Your task to perform on an android device: Open accessibility settings Image 0: 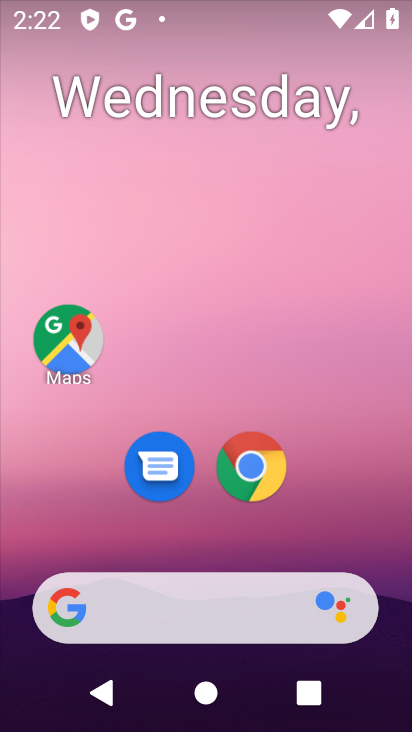
Step 0: drag from (322, 481) to (299, 26)
Your task to perform on an android device: Open accessibility settings Image 1: 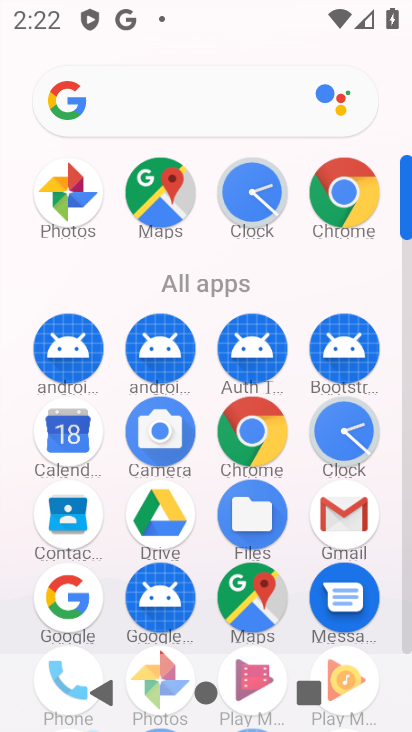
Step 1: click (406, 601)
Your task to perform on an android device: Open accessibility settings Image 2: 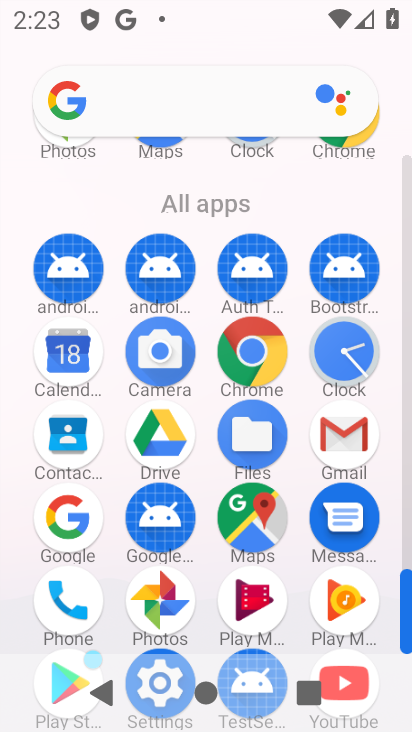
Step 2: click (160, 652)
Your task to perform on an android device: Open accessibility settings Image 3: 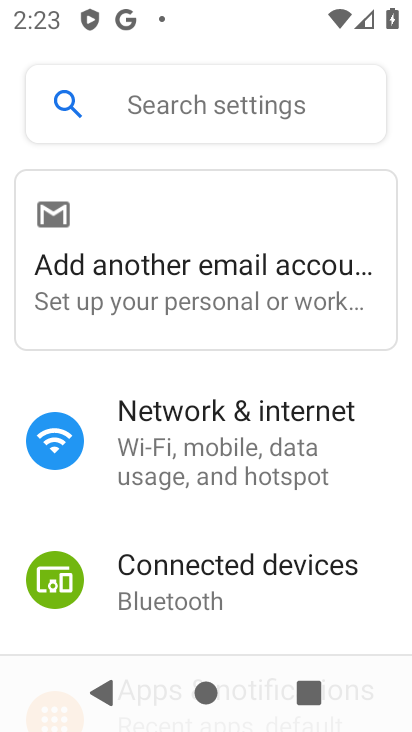
Step 3: drag from (247, 629) to (221, 151)
Your task to perform on an android device: Open accessibility settings Image 4: 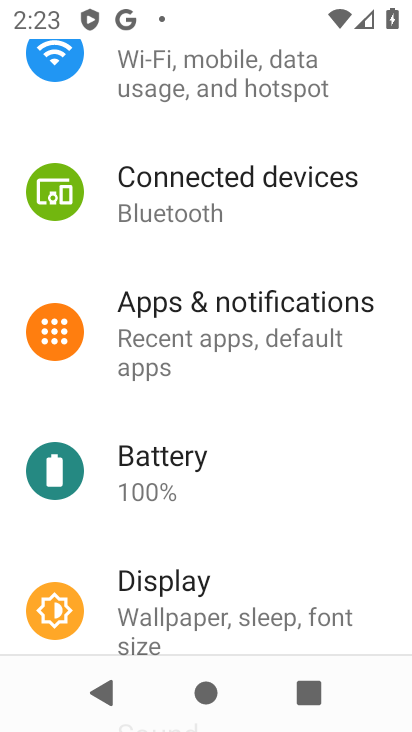
Step 4: drag from (247, 574) to (217, 87)
Your task to perform on an android device: Open accessibility settings Image 5: 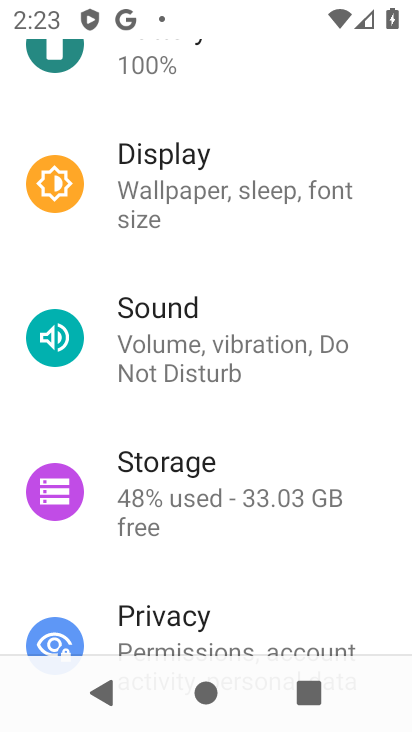
Step 5: drag from (256, 553) to (214, 139)
Your task to perform on an android device: Open accessibility settings Image 6: 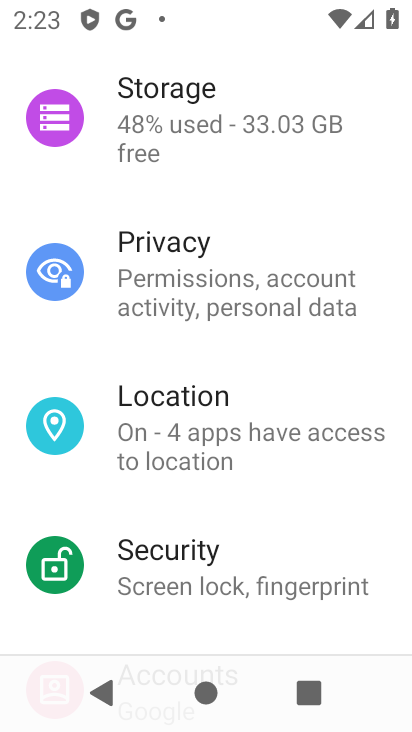
Step 6: drag from (259, 615) to (243, 175)
Your task to perform on an android device: Open accessibility settings Image 7: 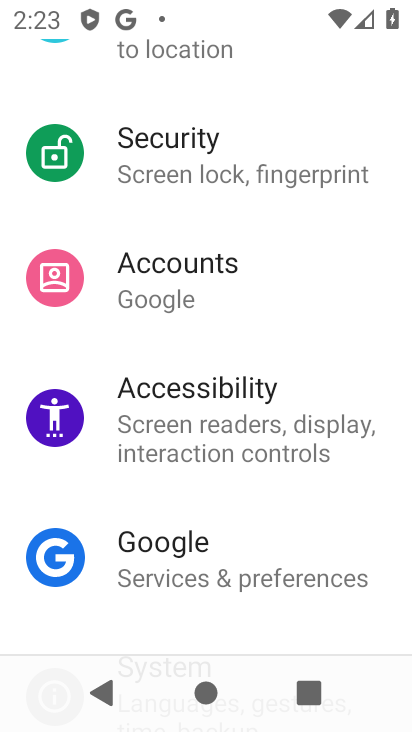
Step 7: click (242, 440)
Your task to perform on an android device: Open accessibility settings Image 8: 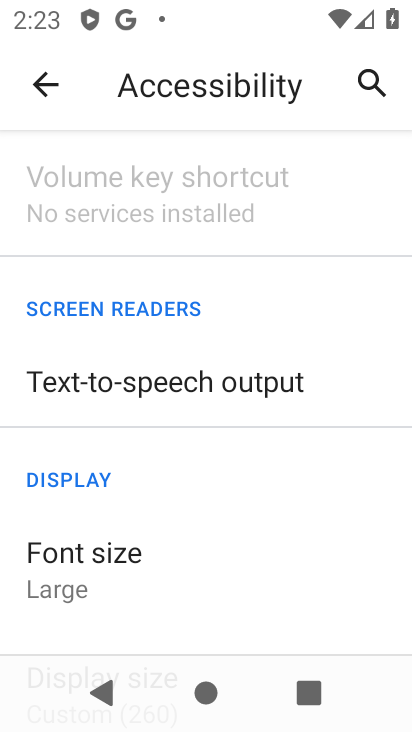
Step 8: task complete